Your task to perform on an android device: Is it going to rain tomorrow? Image 0: 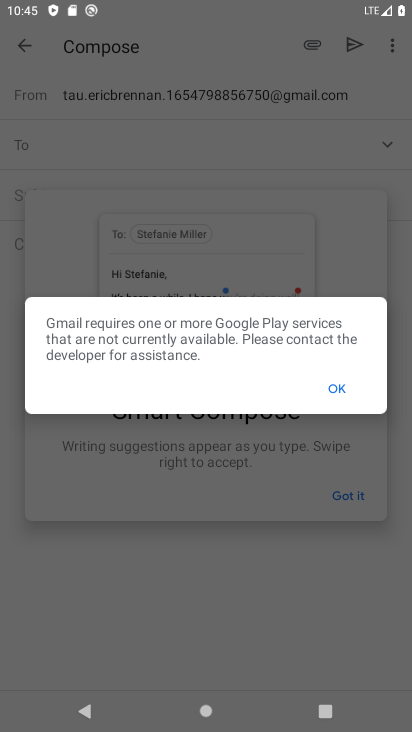
Step 0: press home button
Your task to perform on an android device: Is it going to rain tomorrow? Image 1: 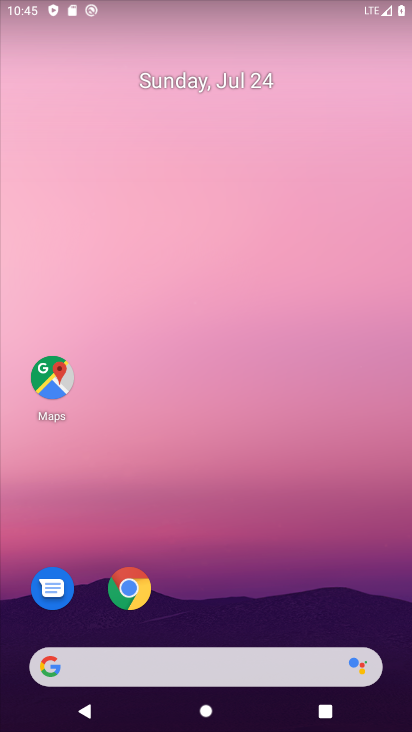
Step 1: click (267, 671)
Your task to perform on an android device: Is it going to rain tomorrow? Image 2: 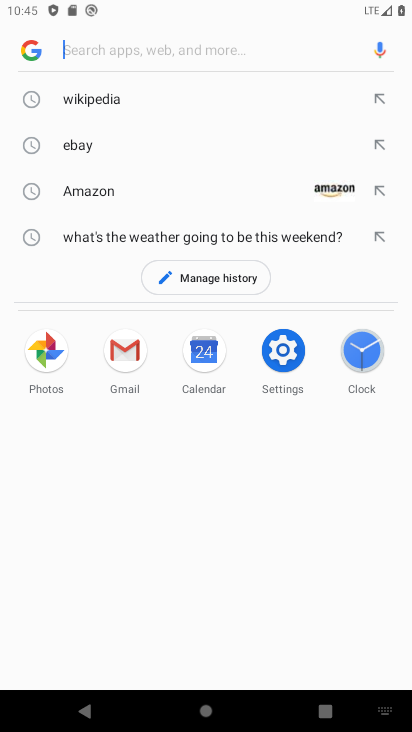
Step 2: type "Is it going to rain tomorrow?"
Your task to perform on an android device: Is it going to rain tomorrow? Image 3: 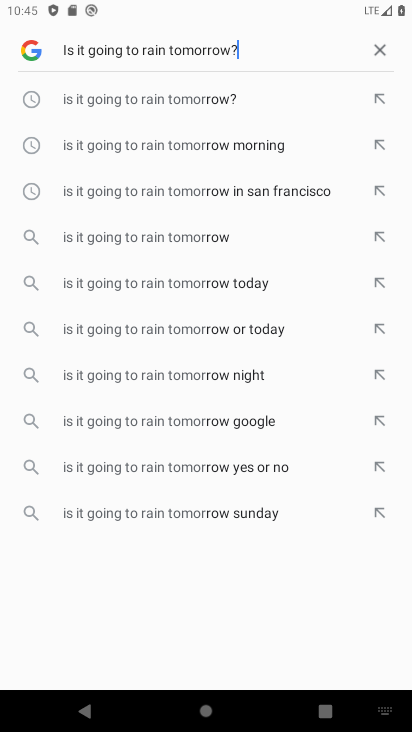
Step 3: press enter
Your task to perform on an android device: Is it going to rain tomorrow? Image 4: 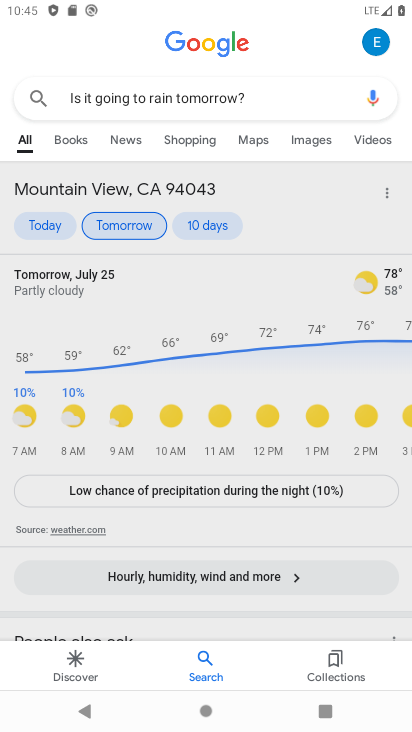
Step 4: task complete